Your task to perform on an android device: check data usage Image 0: 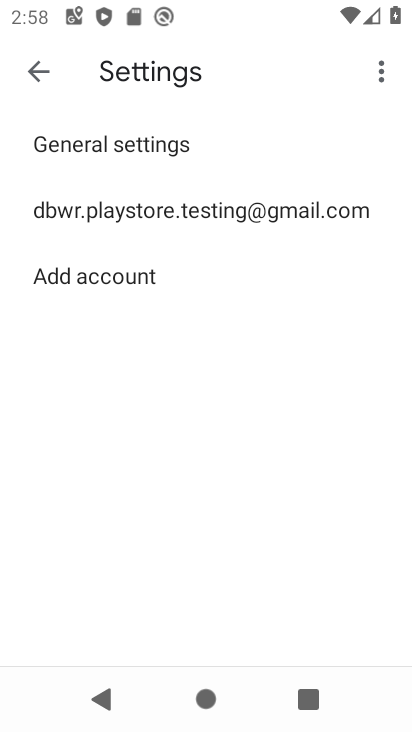
Step 0: press back button
Your task to perform on an android device: check data usage Image 1: 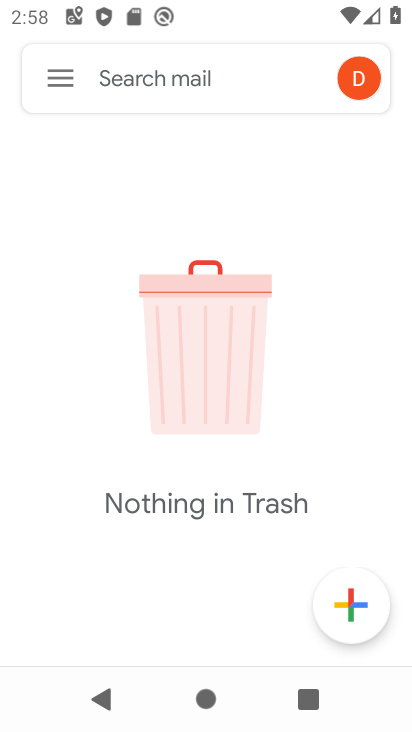
Step 1: press back button
Your task to perform on an android device: check data usage Image 2: 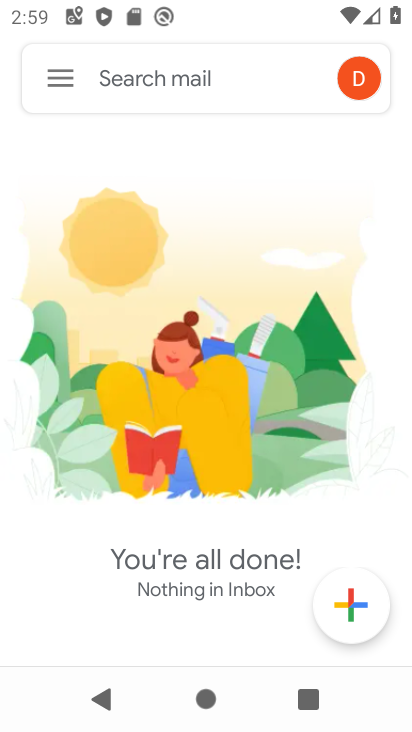
Step 2: press back button
Your task to perform on an android device: check data usage Image 3: 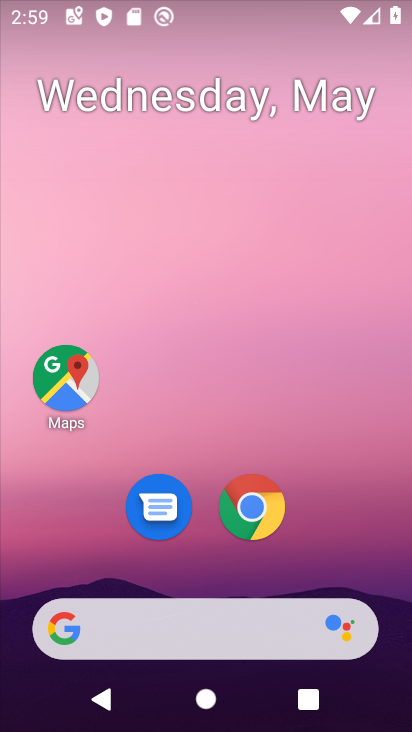
Step 3: drag from (187, 532) to (289, 38)
Your task to perform on an android device: check data usage Image 4: 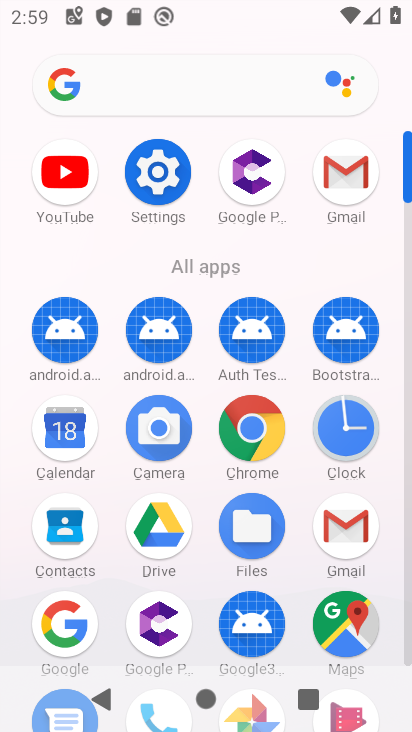
Step 4: click (132, 160)
Your task to perform on an android device: check data usage Image 5: 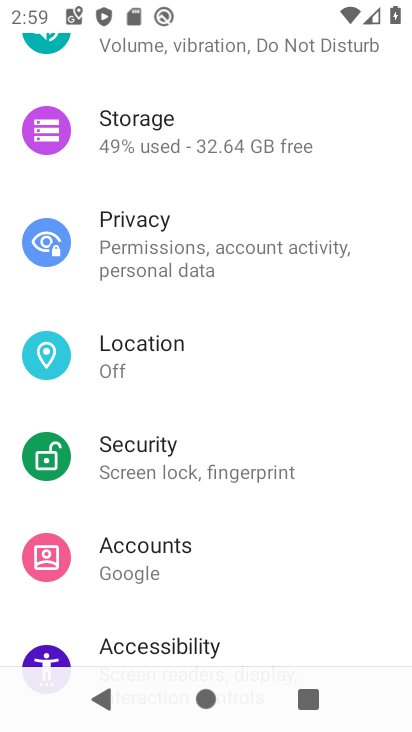
Step 5: drag from (194, 224) to (193, 693)
Your task to perform on an android device: check data usage Image 6: 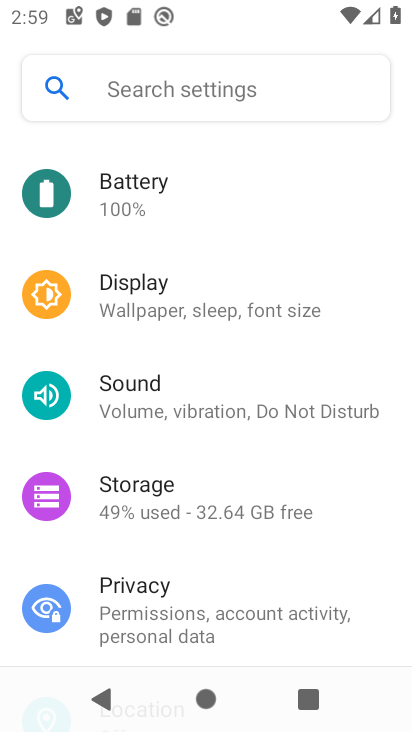
Step 6: drag from (203, 249) to (203, 717)
Your task to perform on an android device: check data usage Image 7: 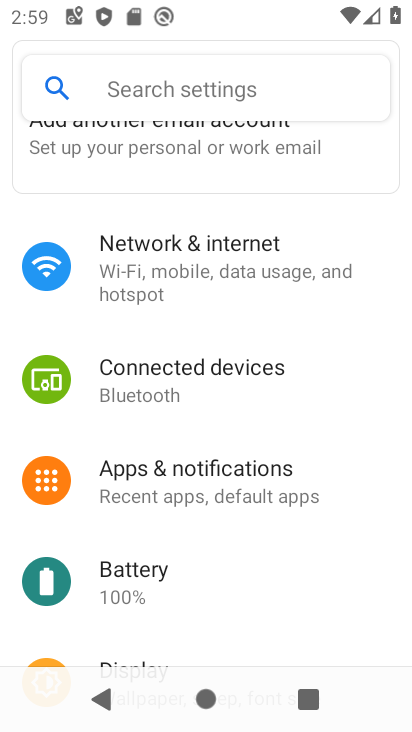
Step 7: click (173, 248)
Your task to perform on an android device: check data usage Image 8: 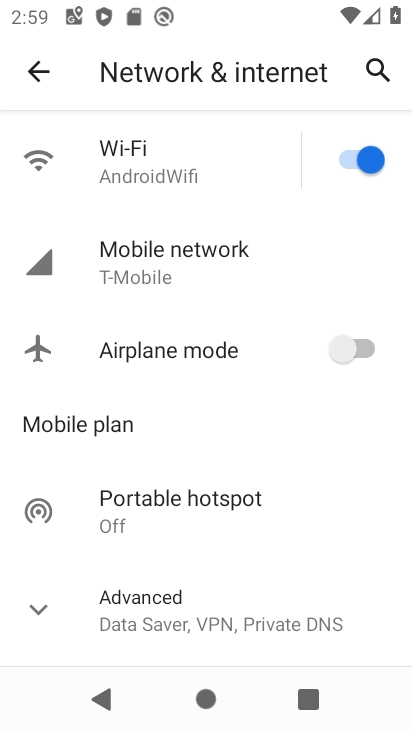
Step 8: click (169, 264)
Your task to perform on an android device: check data usage Image 9: 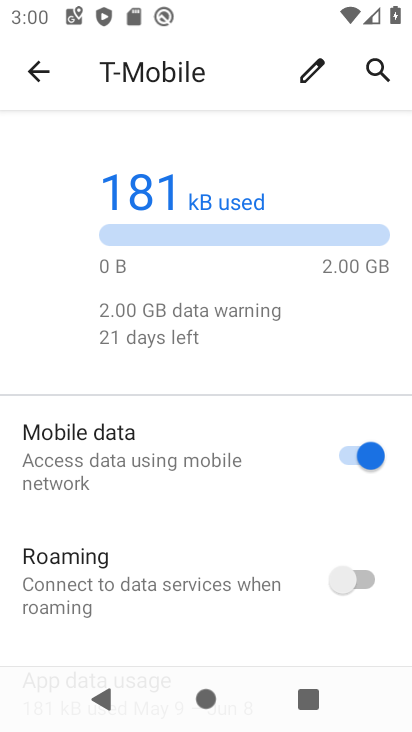
Step 9: drag from (152, 578) to (175, 90)
Your task to perform on an android device: check data usage Image 10: 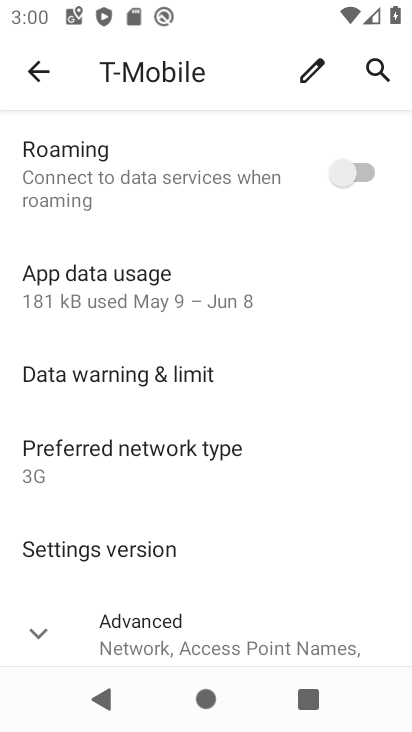
Step 10: click (41, 284)
Your task to perform on an android device: check data usage Image 11: 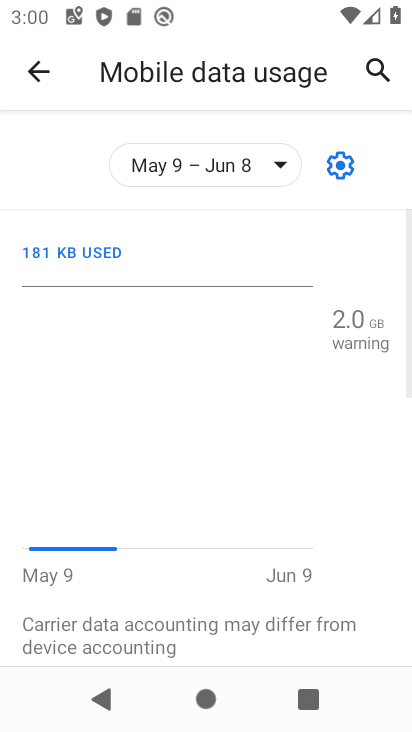
Step 11: task complete